Your task to perform on an android device: What's on my calendar tomorrow? Image 0: 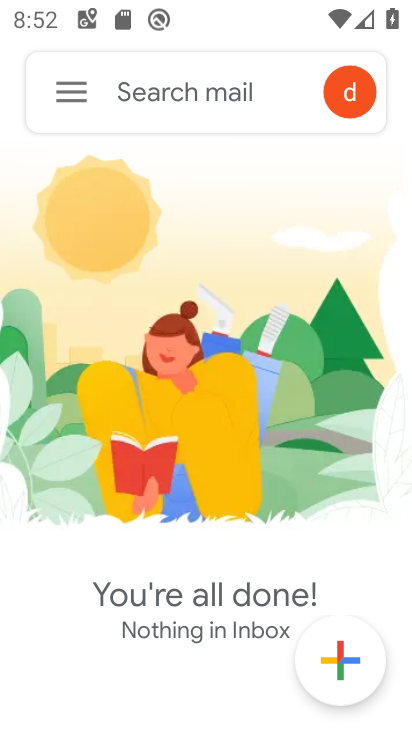
Step 0: press home button
Your task to perform on an android device: What's on my calendar tomorrow? Image 1: 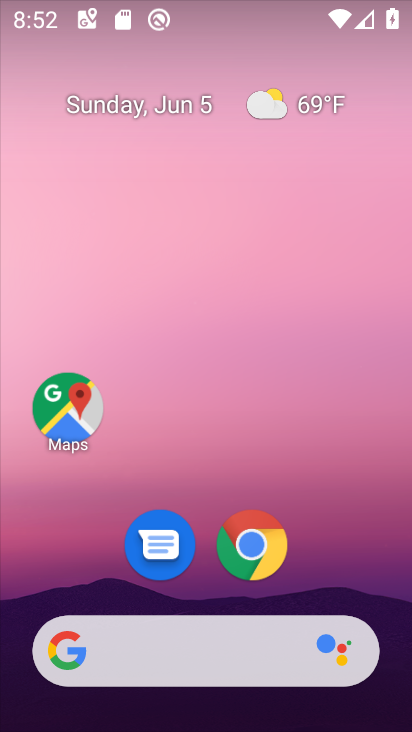
Step 1: drag from (370, 576) to (353, 210)
Your task to perform on an android device: What's on my calendar tomorrow? Image 2: 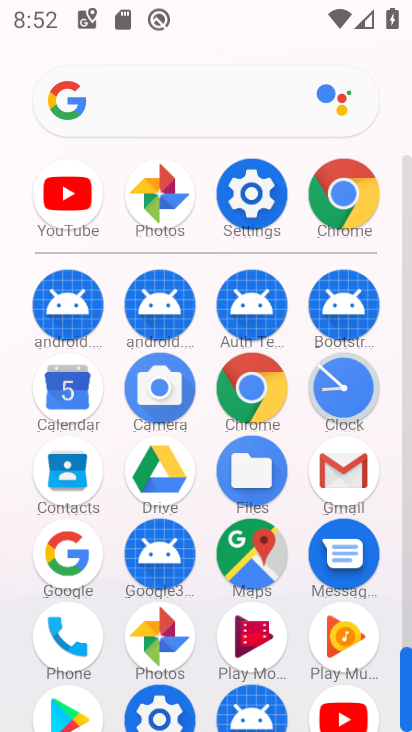
Step 2: click (67, 406)
Your task to perform on an android device: What's on my calendar tomorrow? Image 3: 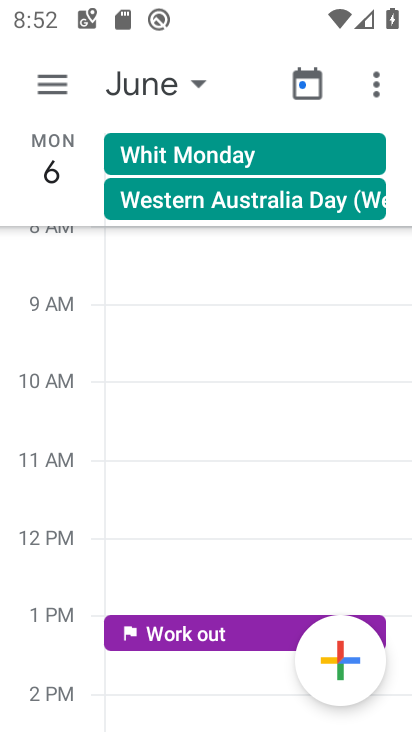
Step 3: click (193, 83)
Your task to perform on an android device: What's on my calendar tomorrow? Image 4: 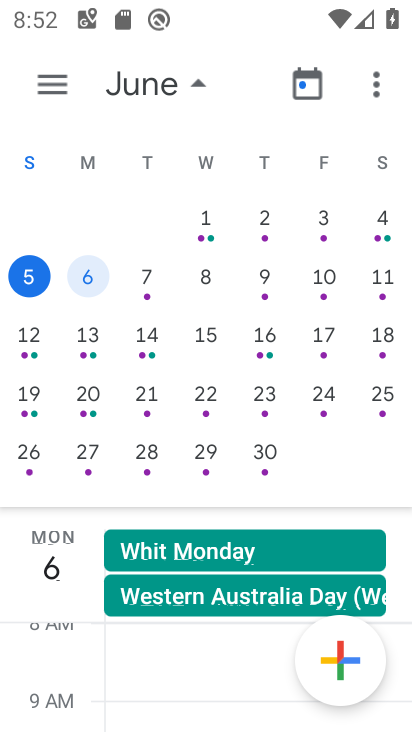
Step 4: click (146, 276)
Your task to perform on an android device: What's on my calendar tomorrow? Image 5: 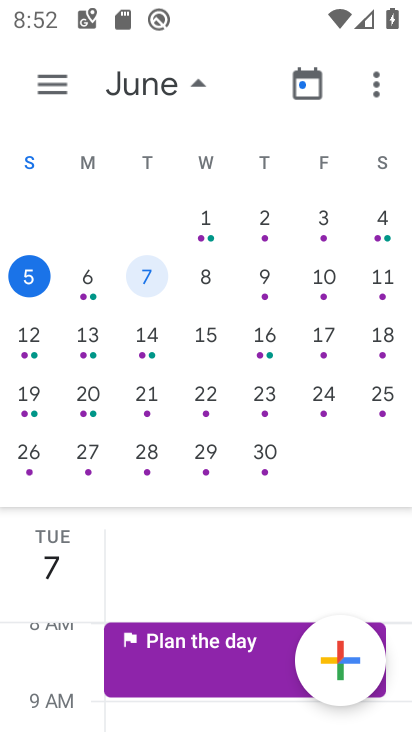
Step 5: drag from (261, 556) to (282, 257)
Your task to perform on an android device: What's on my calendar tomorrow? Image 6: 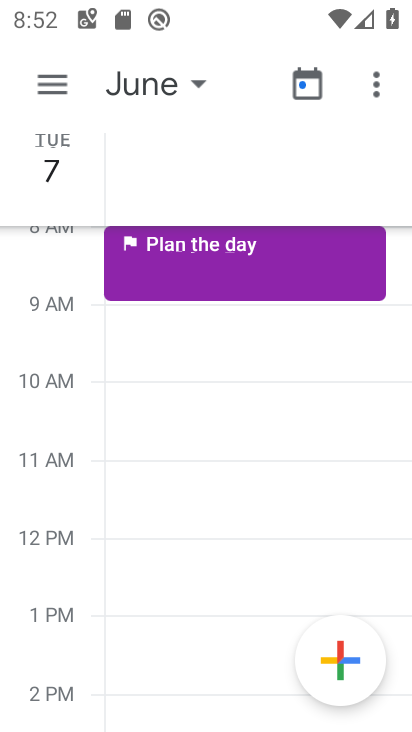
Step 6: click (225, 264)
Your task to perform on an android device: What's on my calendar tomorrow? Image 7: 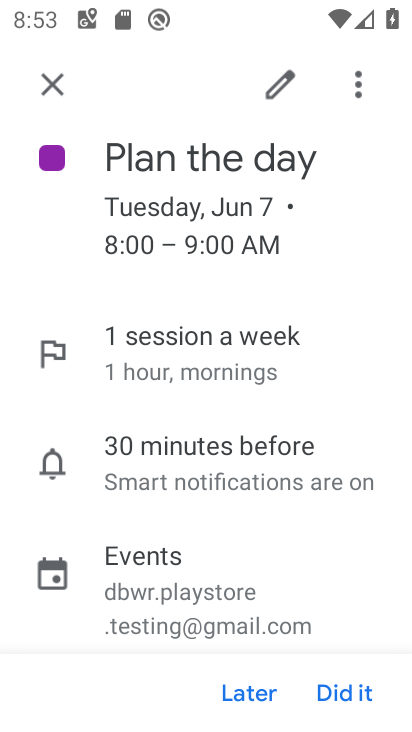
Step 7: task complete